Your task to perform on an android device: Show me productivity apps on the Play Store Image 0: 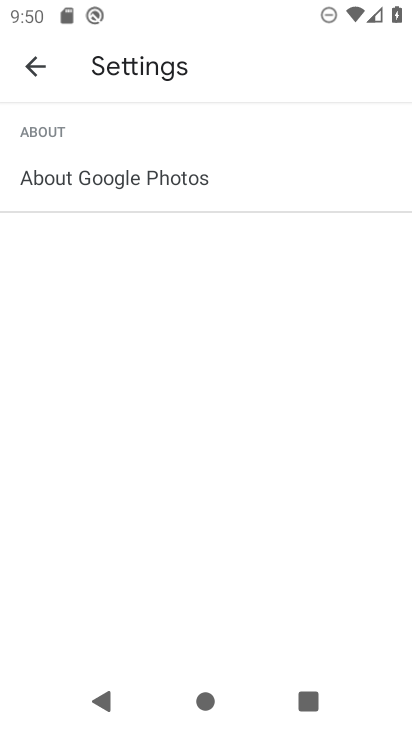
Step 0: press home button
Your task to perform on an android device: Show me productivity apps on the Play Store Image 1: 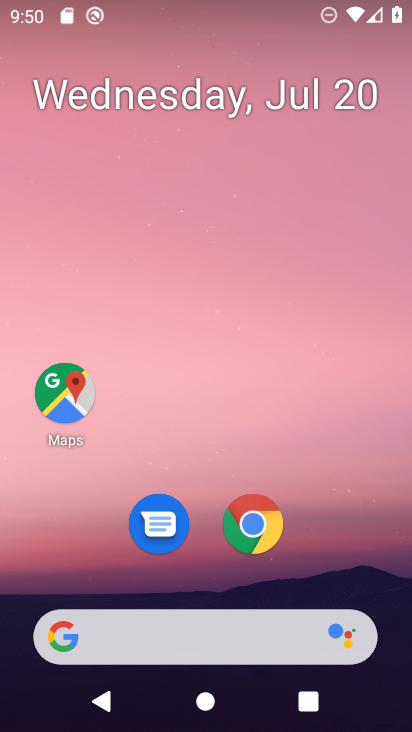
Step 1: drag from (185, 645) to (288, 154)
Your task to perform on an android device: Show me productivity apps on the Play Store Image 2: 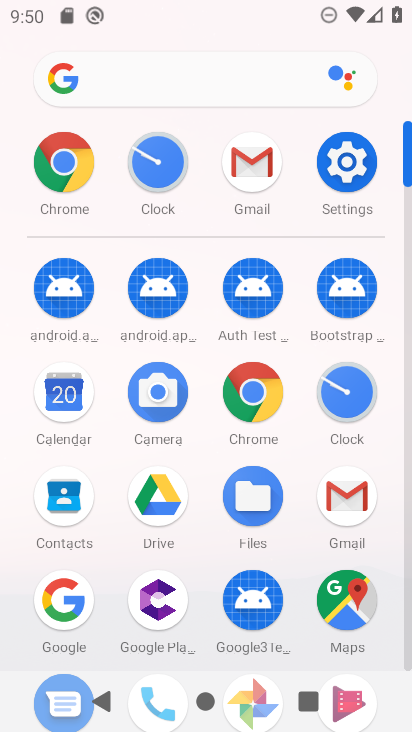
Step 2: drag from (210, 617) to (281, 119)
Your task to perform on an android device: Show me productivity apps on the Play Store Image 3: 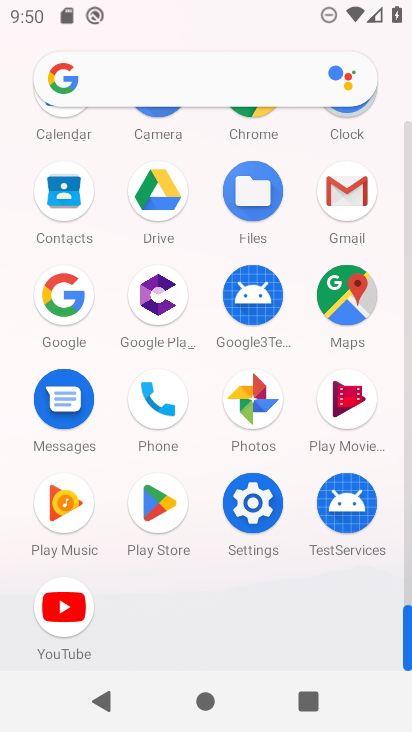
Step 3: click (156, 509)
Your task to perform on an android device: Show me productivity apps on the Play Store Image 4: 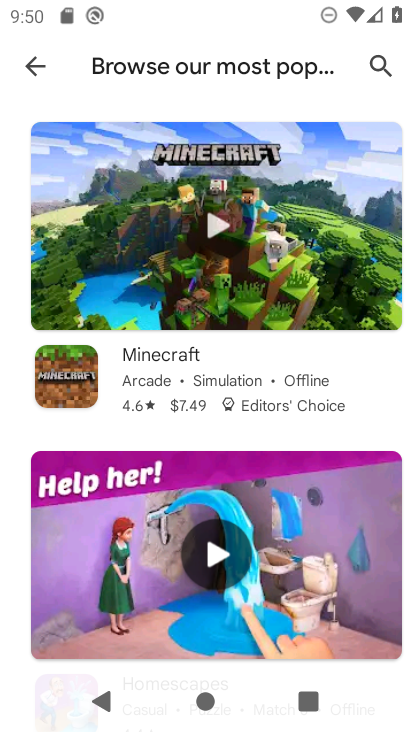
Step 4: click (39, 67)
Your task to perform on an android device: Show me productivity apps on the Play Store Image 5: 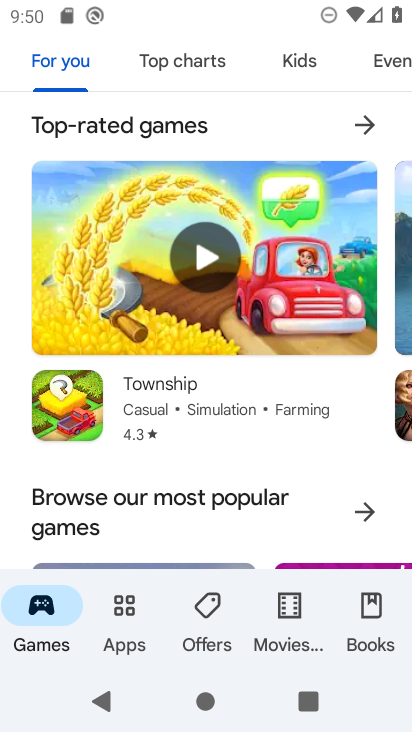
Step 5: click (121, 617)
Your task to perform on an android device: Show me productivity apps on the Play Store Image 6: 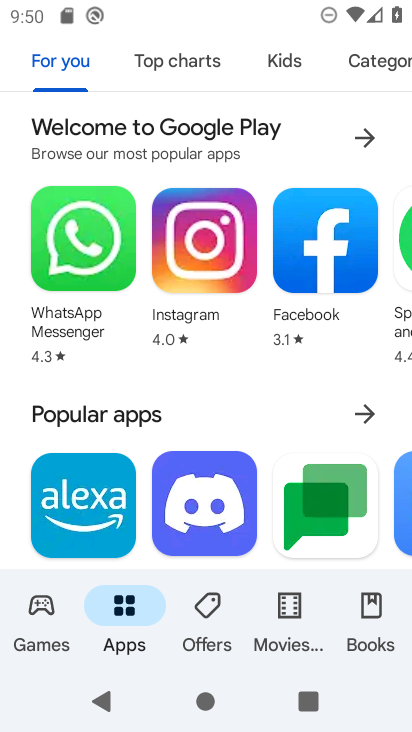
Step 6: click (378, 58)
Your task to perform on an android device: Show me productivity apps on the Play Store Image 7: 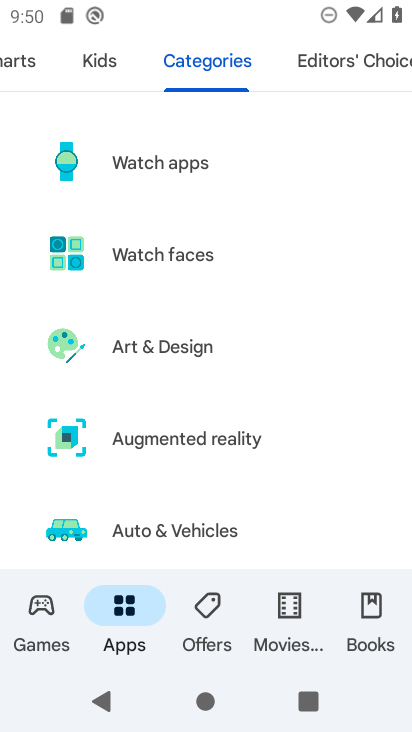
Step 7: drag from (246, 439) to (374, 81)
Your task to perform on an android device: Show me productivity apps on the Play Store Image 8: 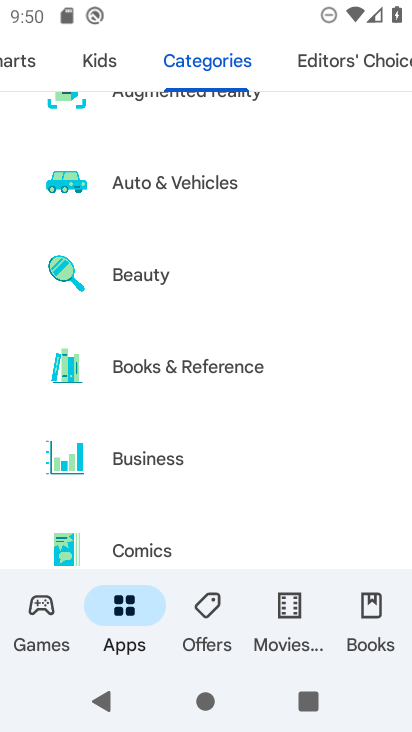
Step 8: drag from (268, 486) to (325, 80)
Your task to perform on an android device: Show me productivity apps on the Play Store Image 9: 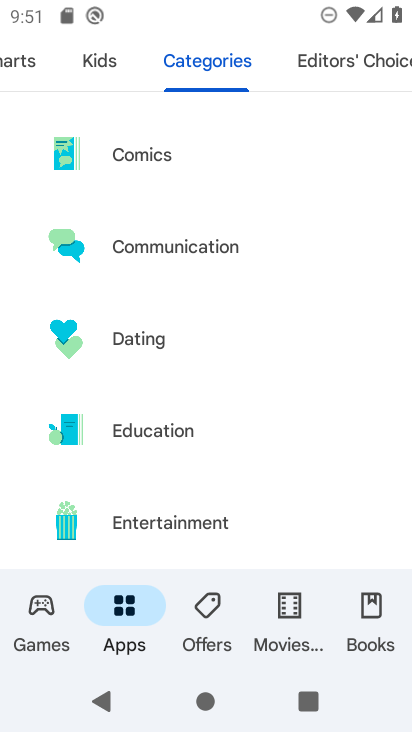
Step 9: drag from (219, 515) to (303, 116)
Your task to perform on an android device: Show me productivity apps on the Play Store Image 10: 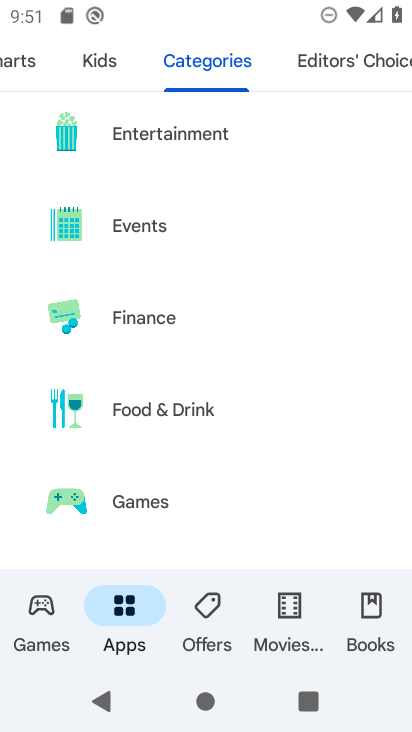
Step 10: drag from (211, 500) to (342, 62)
Your task to perform on an android device: Show me productivity apps on the Play Store Image 11: 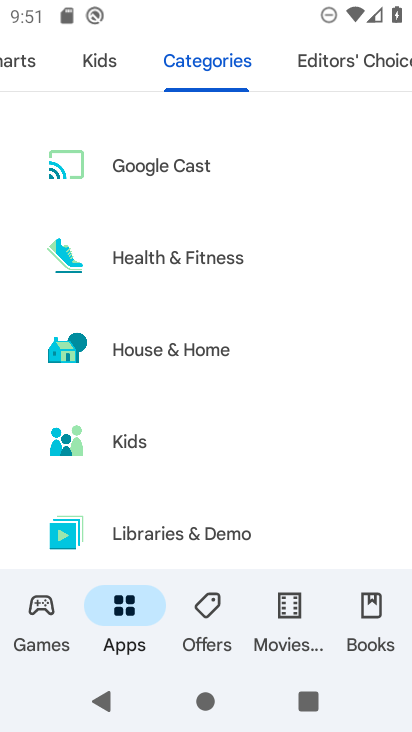
Step 11: drag from (289, 459) to (359, 20)
Your task to perform on an android device: Show me productivity apps on the Play Store Image 12: 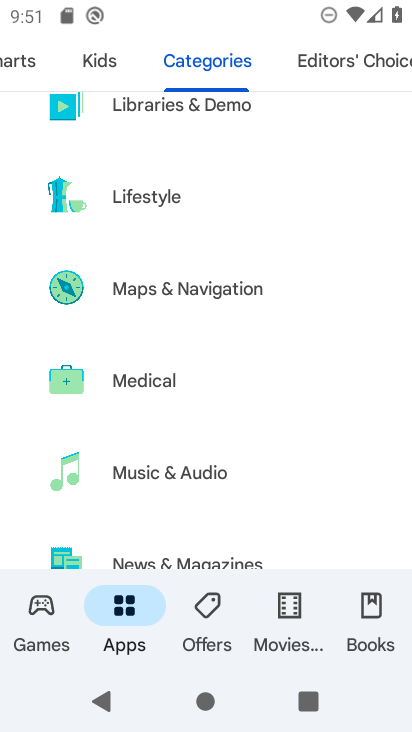
Step 12: drag from (271, 435) to (345, 143)
Your task to perform on an android device: Show me productivity apps on the Play Store Image 13: 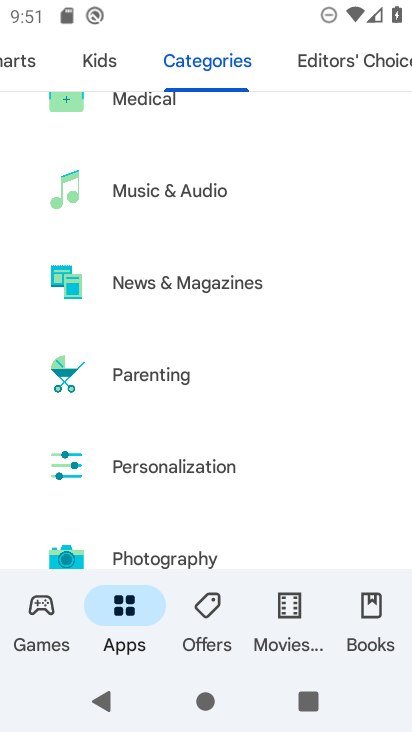
Step 13: drag from (236, 530) to (360, 150)
Your task to perform on an android device: Show me productivity apps on the Play Store Image 14: 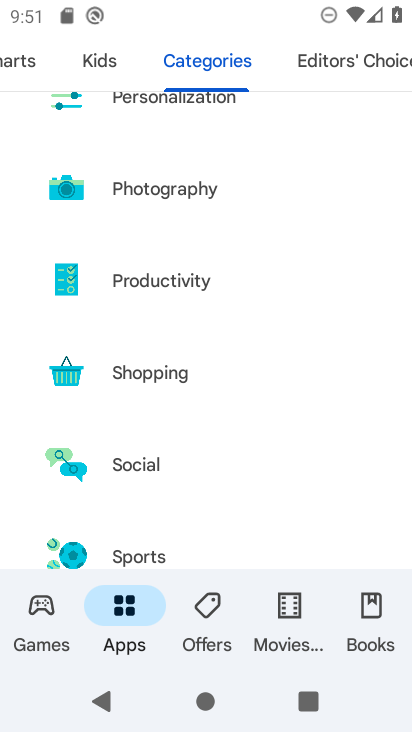
Step 14: click (189, 273)
Your task to perform on an android device: Show me productivity apps on the Play Store Image 15: 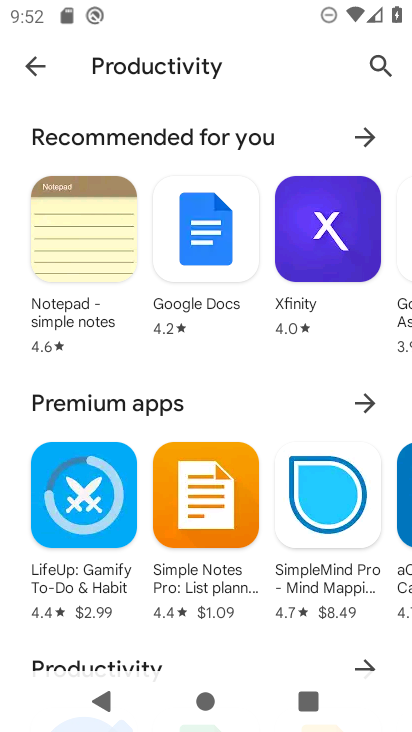
Step 15: task complete